Your task to perform on an android device: Go to settings Image 0: 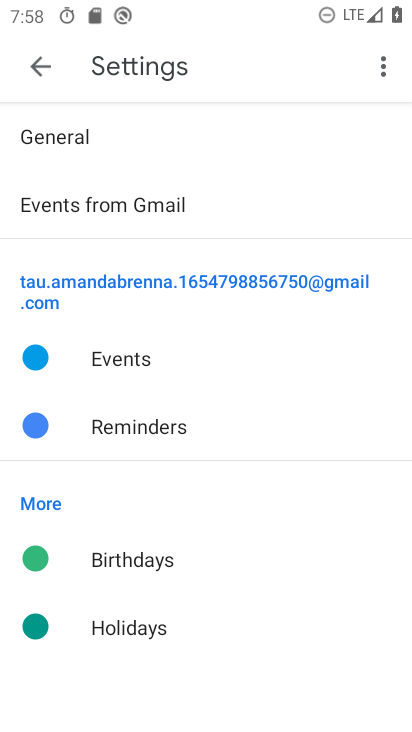
Step 0: press home button
Your task to perform on an android device: Go to settings Image 1: 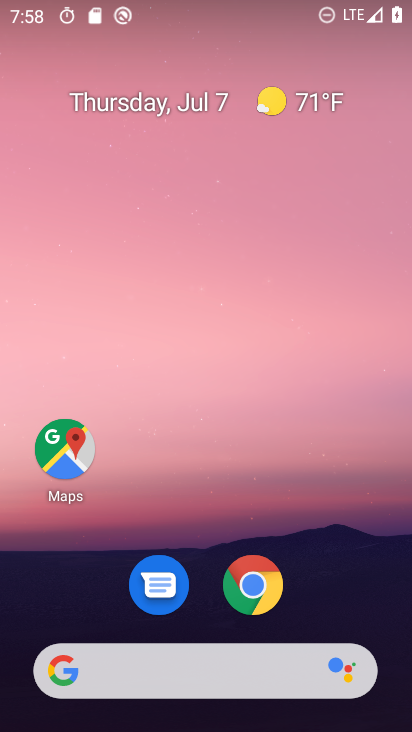
Step 1: drag from (208, 672) to (293, 131)
Your task to perform on an android device: Go to settings Image 2: 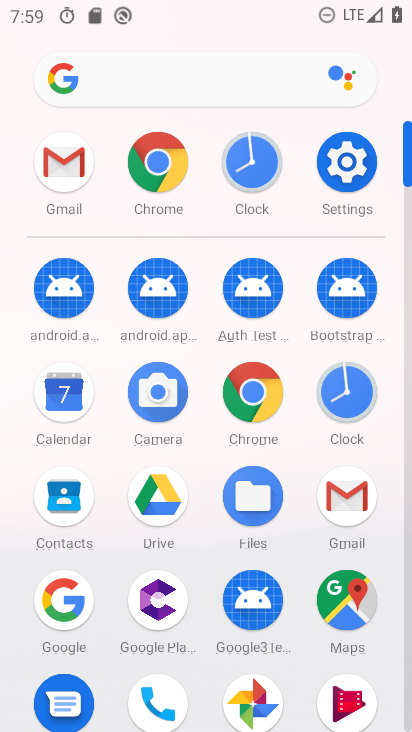
Step 2: click (342, 162)
Your task to perform on an android device: Go to settings Image 3: 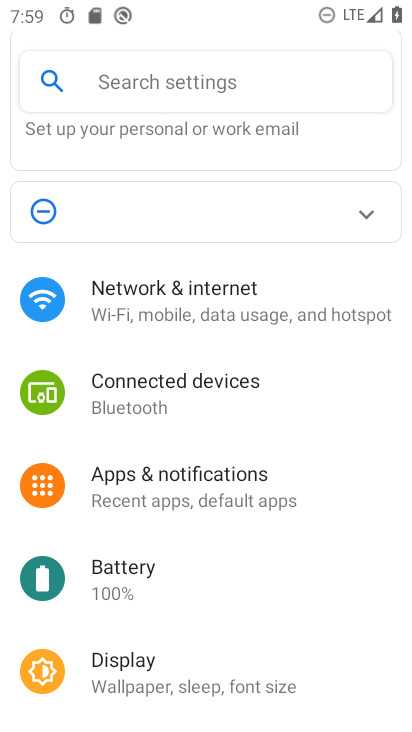
Step 3: task complete